Your task to perform on an android device: What's the US dollar exchange rate against the Euro? Image 0: 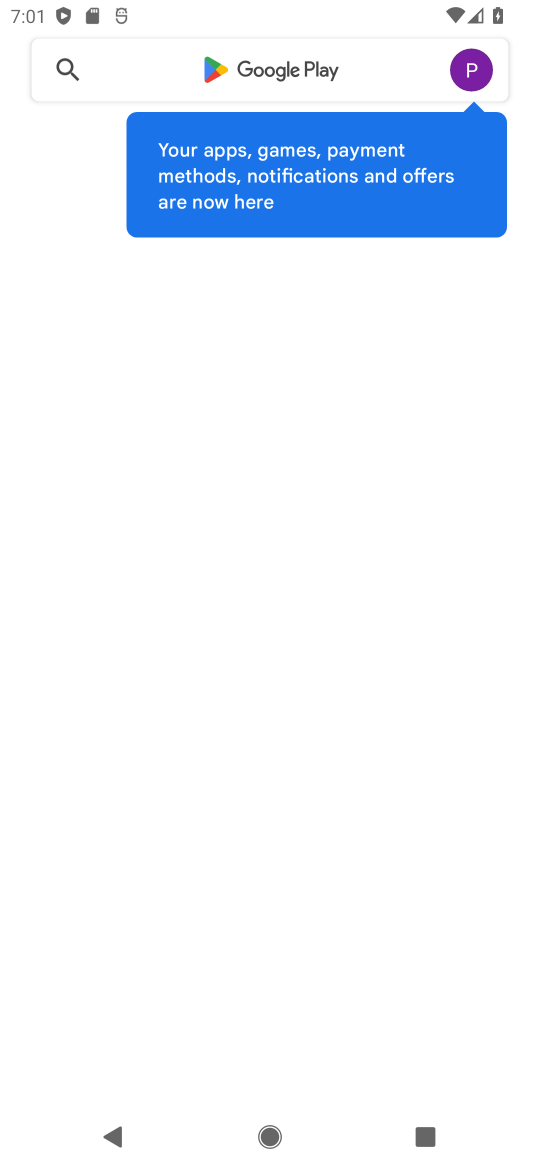
Step 0: press home button
Your task to perform on an android device: What's the US dollar exchange rate against the Euro? Image 1: 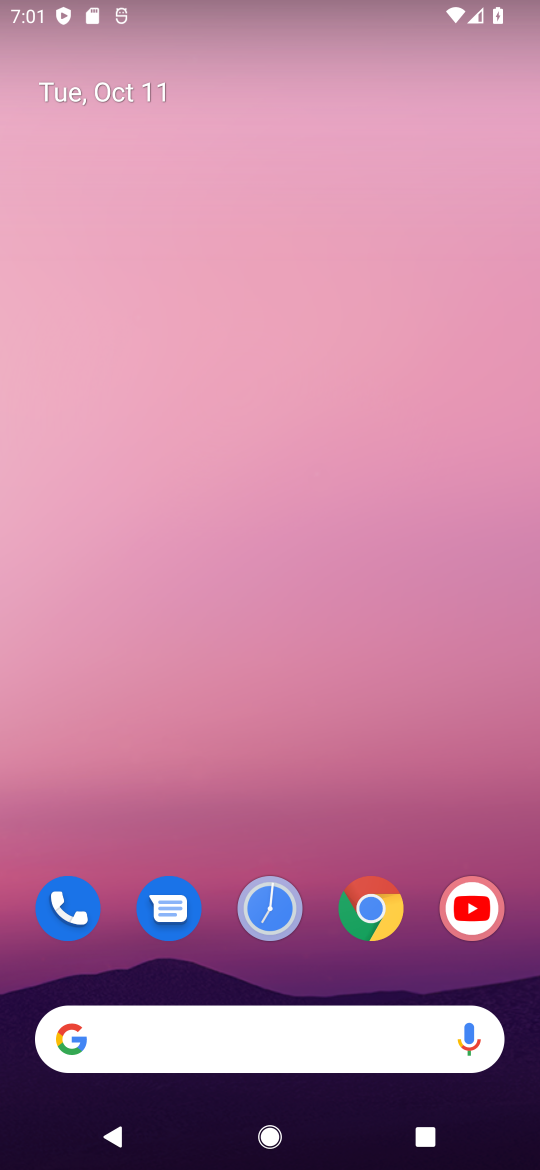
Step 1: click (298, 1040)
Your task to perform on an android device: What's the US dollar exchange rate against the Euro? Image 2: 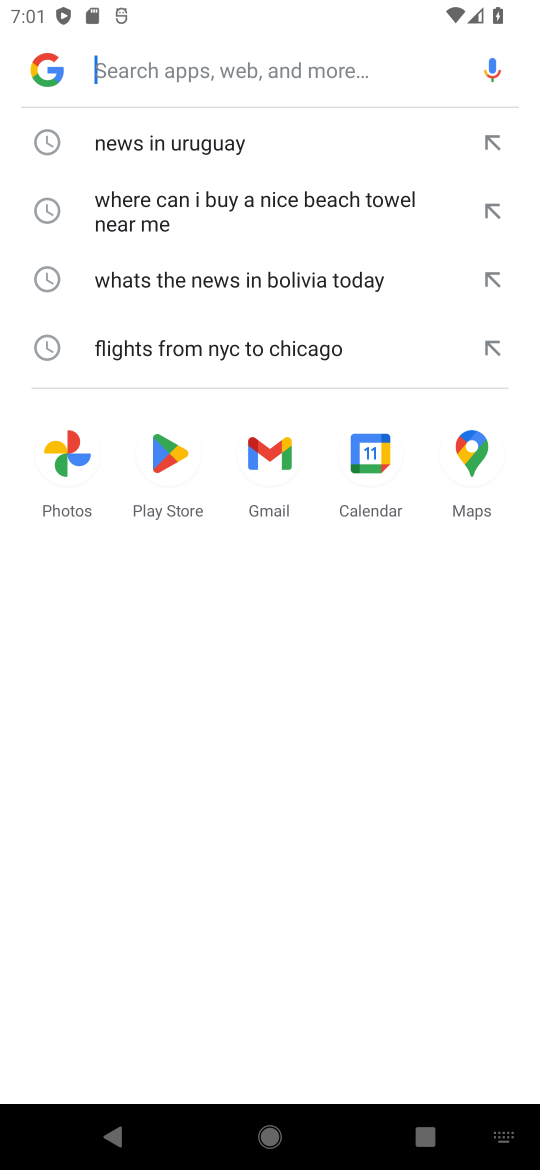
Step 2: type "What's the US dollar exchange rate against the Euro?"
Your task to perform on an android device: What's the US dollar exchange rate against the Euro? Image 3: 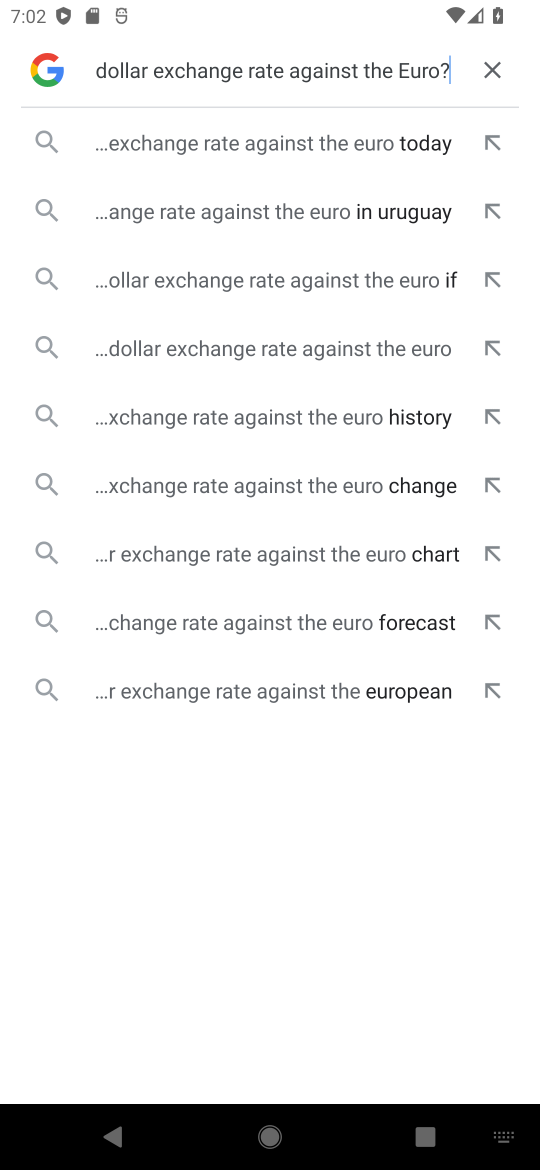
Step 3: click (349, 139)
Your task to perform on an android device: What's the US dollar exchange rate against the Euro? Image 4: 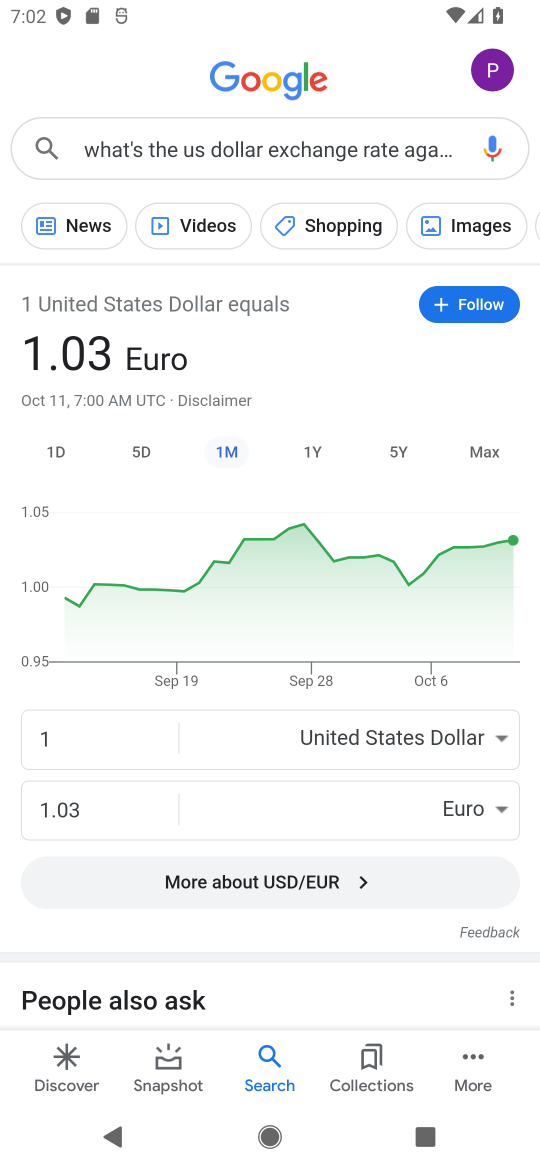
Step 4: task complete